Your task to perform on an android device: Go to CNN.com Image 0: 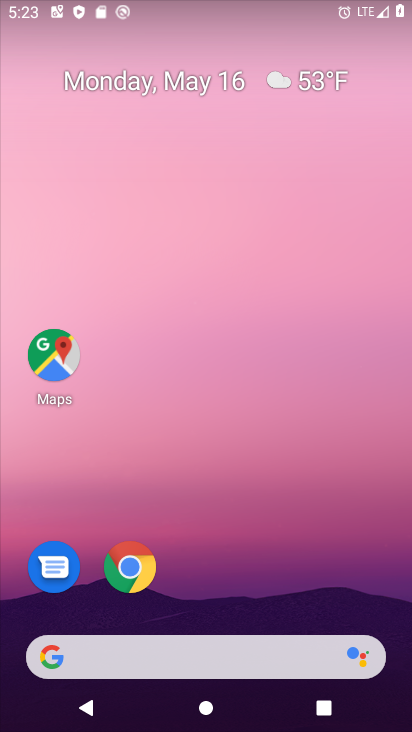
Step 0: drag from (314, 648) to (301, 135)
Your task to perform on an android device: Go to CNN.com Image 1: 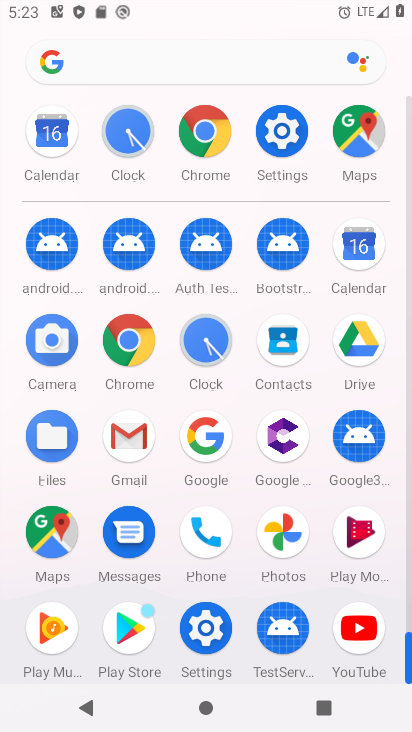
Step 1: click (137, 342)
Your task to perform on an android device: Go to CNN.com Image 2: 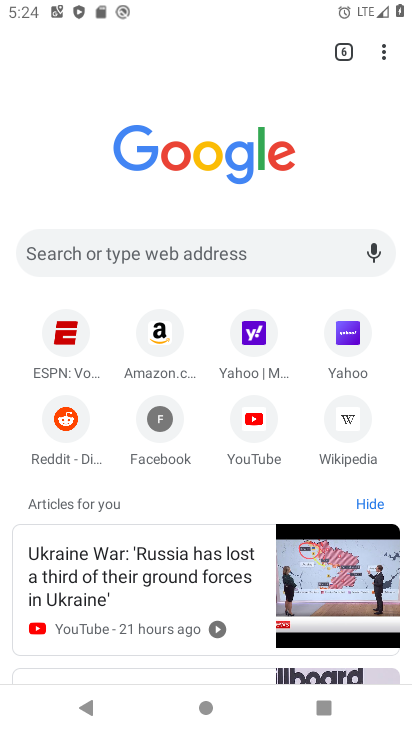
Step 2: click (244, 252)
Your task to perform on an android device: Go to CNN.com Image 3: 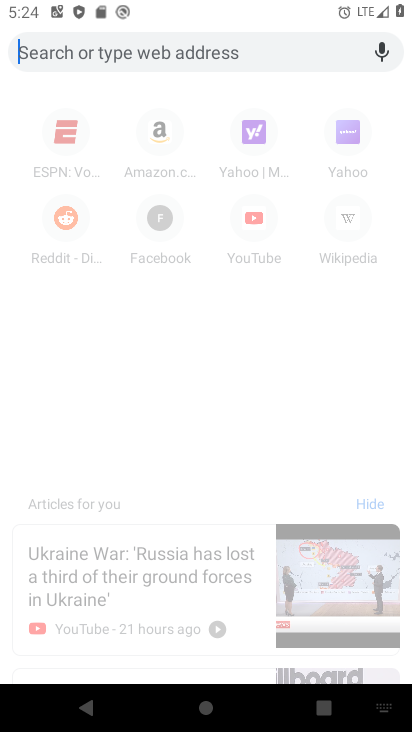
Step 3: type "cnn.com"
Your task to perform on an android device: Go to CNN.com Image 4: 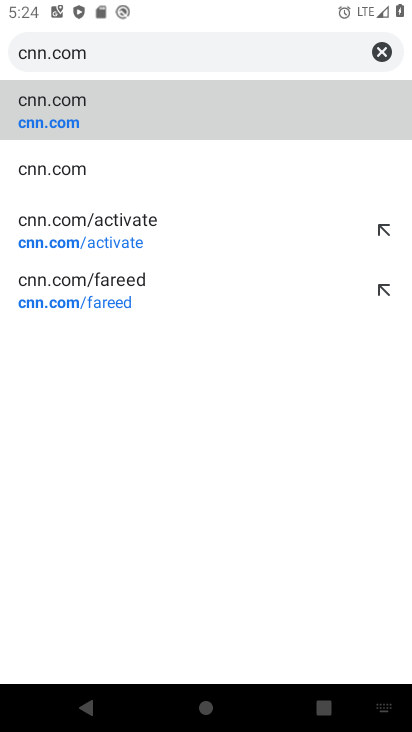
Step 4: click (264, 114)
Your task to perform on an android device: Go to CNN.com Image 5: 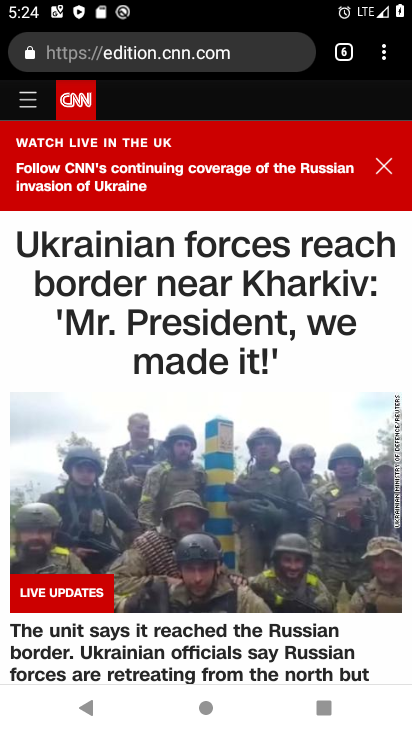
Step 5: task complete